Your task to perform on an android device: toggle sleep mode Image 0: 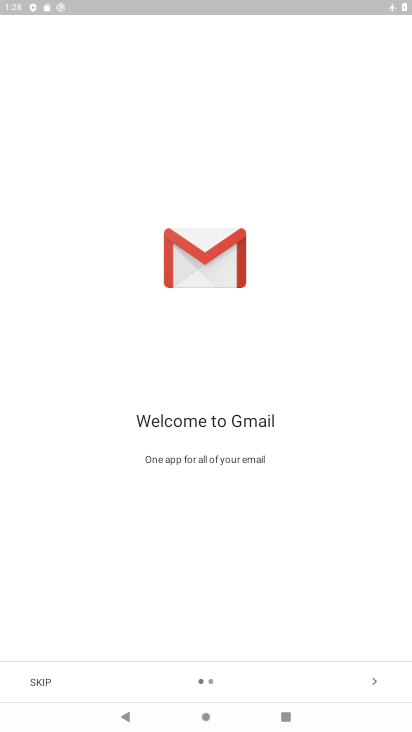
Step 0: press home button
Your task to perform on an android device: toggle sleep mode Image 1: 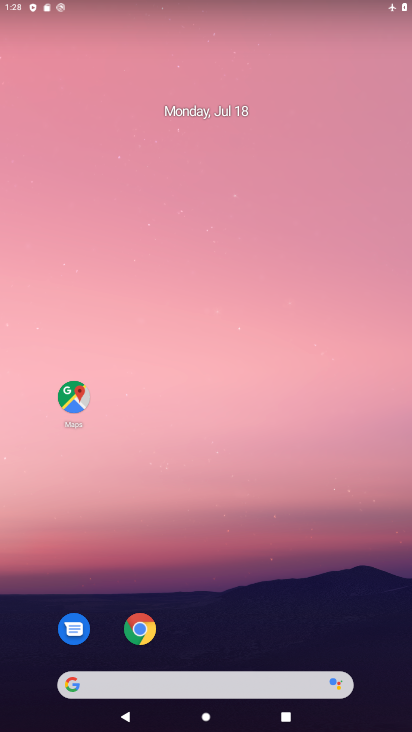
Step 1: drag from (244, 0) to (166, 446)
Your task to perform on an android device: toggle sleep mode Image 2: 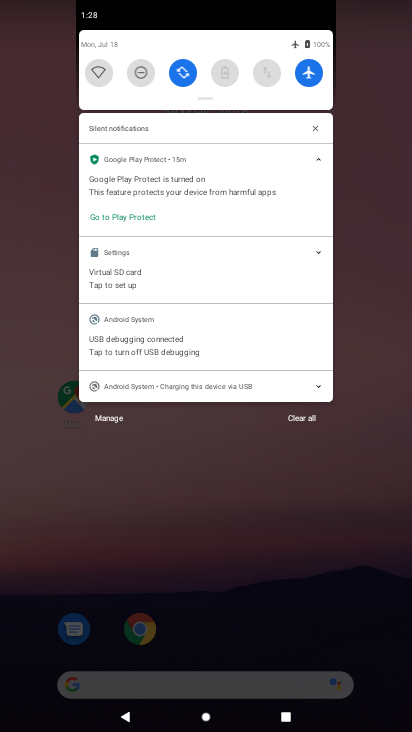
Step 2: drag from (206, 111) to (168, 519)
Your task to perform on an android device: toggle sleep mode Image 3: 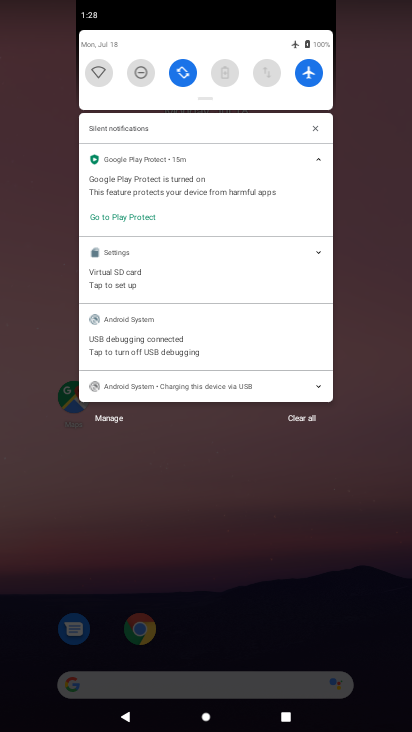
Step 3: click (178, 336)
Your task to perform on an android device: toggle sleep mode Image 4: 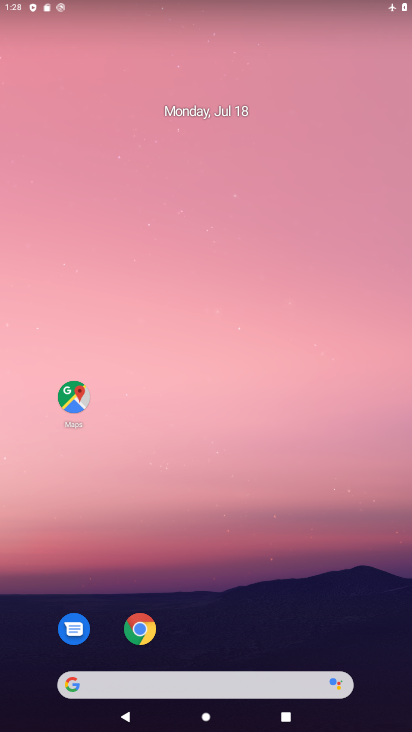
Step 4: drag from (218, 3) to (220, 286)
Your task to perform on an android device: toggle sleep mode Image 5: 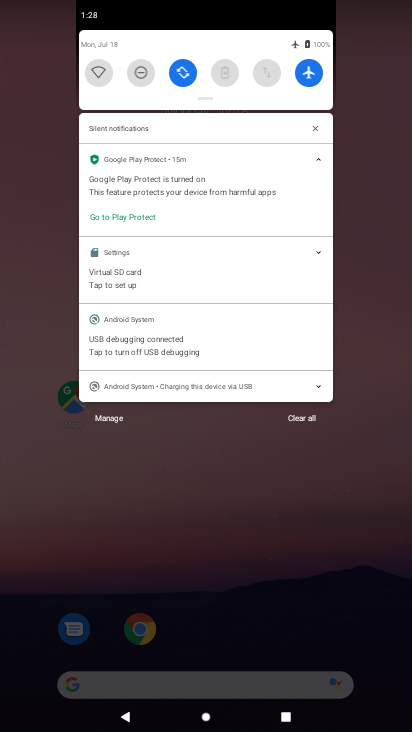
Step 5: drag from (202, 93) to (205, 328)
Your task to perform on an android device: toggle sleep mode Image 6: 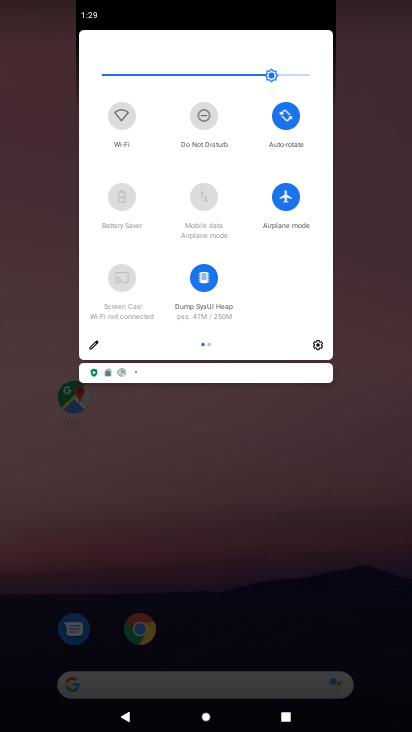
Step 6: drag from (280, 269) to (78, 226)
Your task to perform on an android device: toggle sleep mode Image 7: 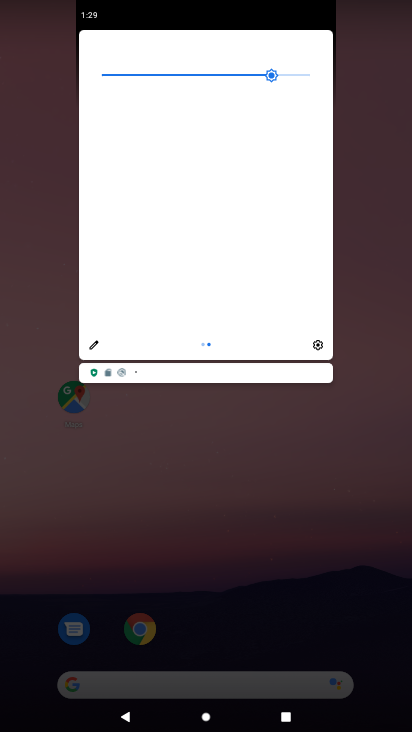
Step 7: click (317, 344)
Your task to perform on an android device: toggle sleep mode Image 8: 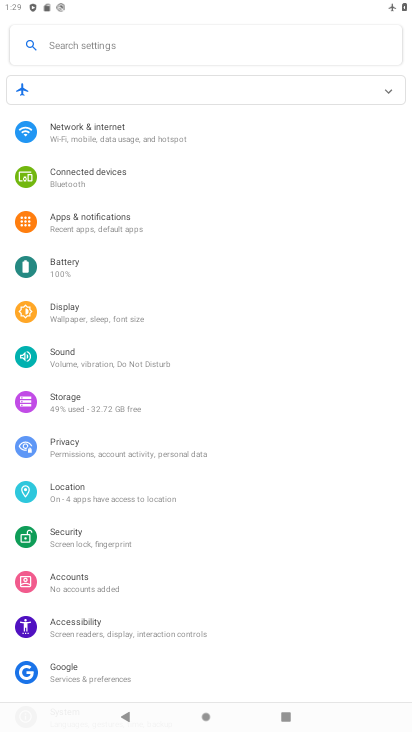
Step 8: task complete